Your task to perform on an android device: Add macbook pro 13 inch to the cart on costco.com, then select checkout. Image 0: 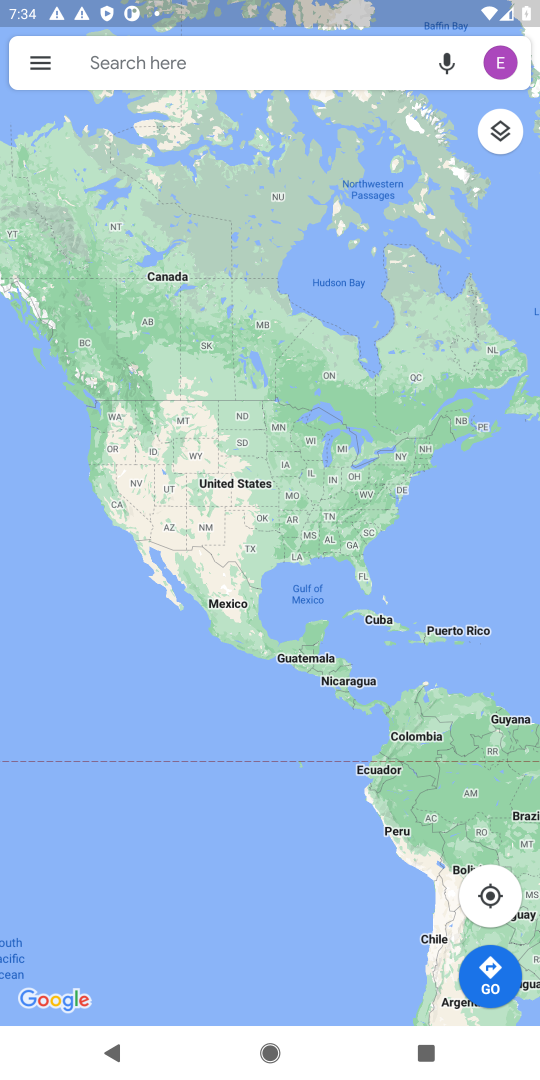
Step 0: press home button
Your task to perform on an android device: Add macbook pro 13 inch to the cart on costco.com, then select checkout. Image 1: 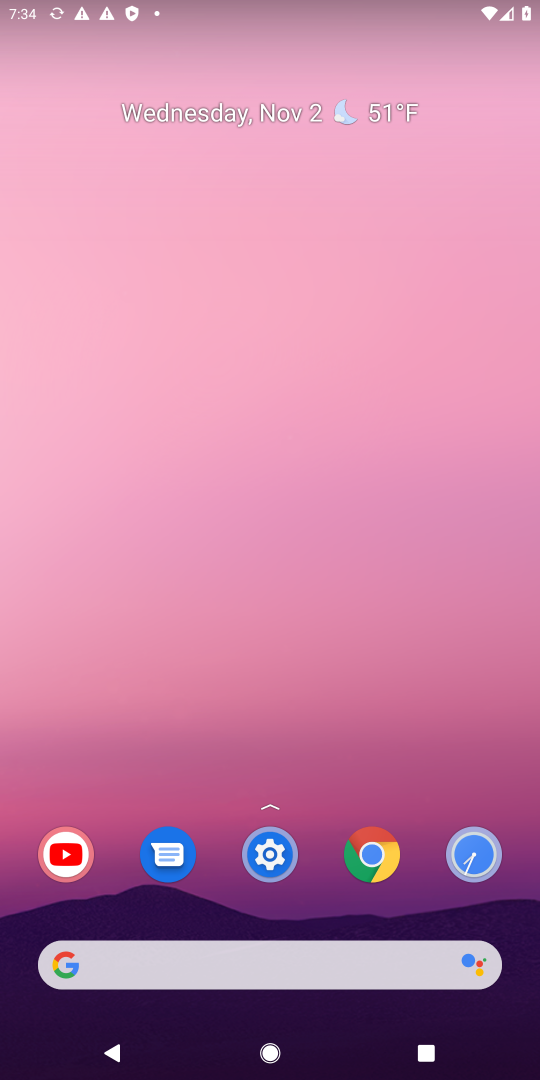
Step 1: click (371, 866)
Your task to perform on an android device: Add macbook pro 13 inch to the cart on costco.com, then select checkout. Image 2: 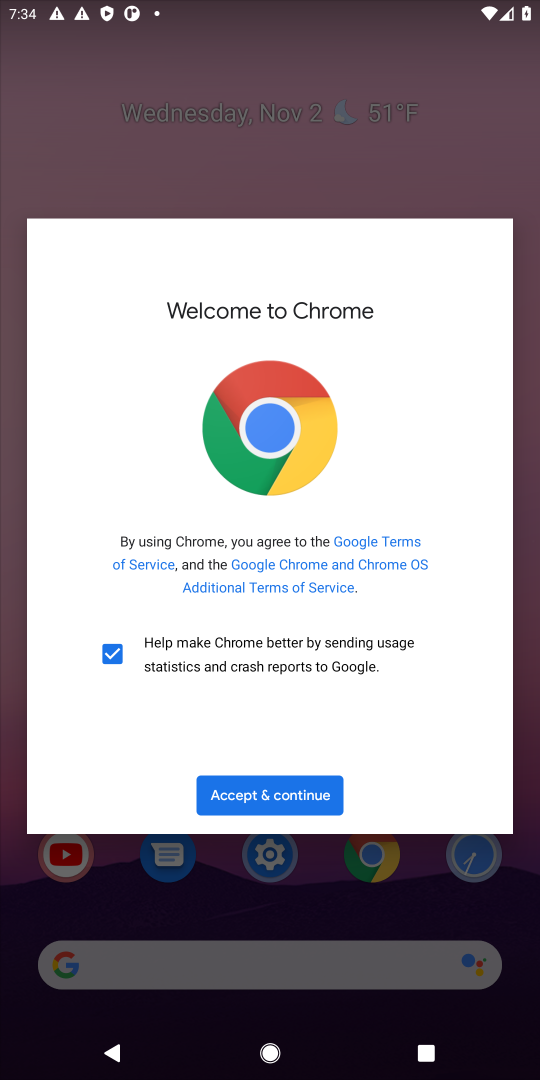
Step 2: click (216, 801)
Your task to perform on an android device: Add macbook pro 13 inch to the cart on costco.com, then select checkout. Image 3: 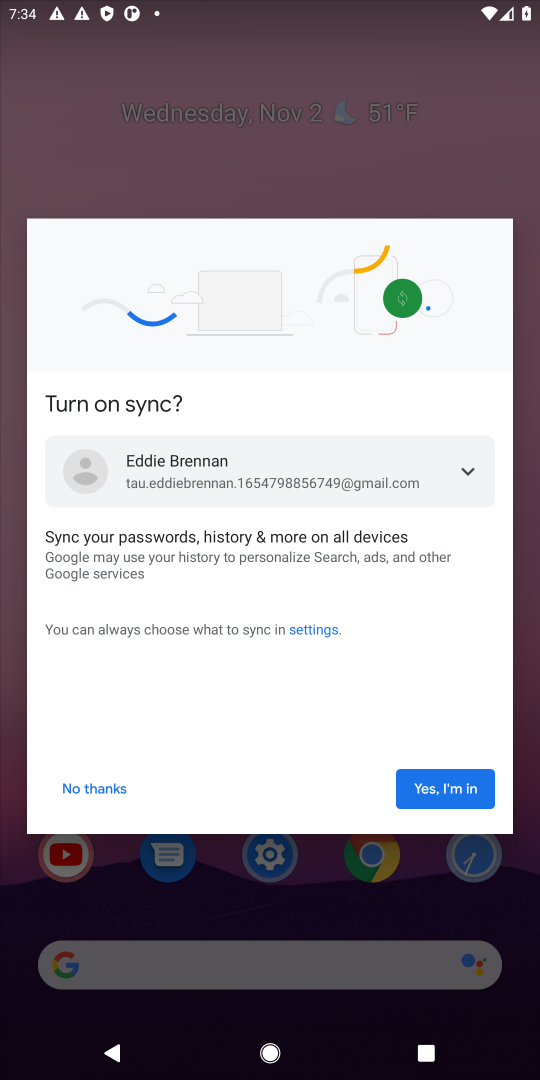
Step 3: click (468, 787)
Your task to perform on an android device: Add macbook pro 13 inch to the cart on costco.com, then select checkout. Image 4: 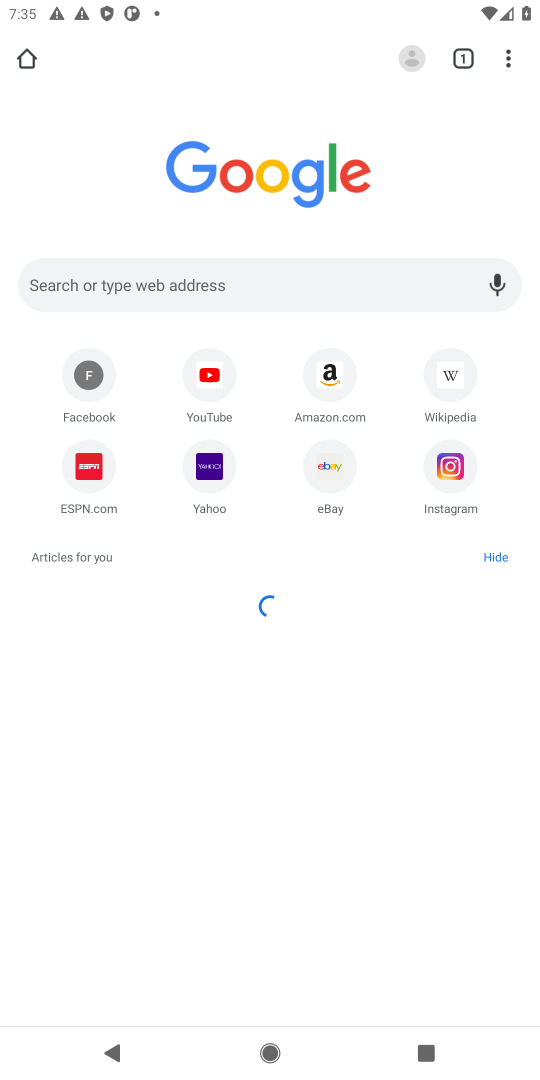
Step 4: click (156, 286)
Your task to perform on an android device: Add macbook pro 13 inch to the cart on costco.com, then select checkout. Image 5: 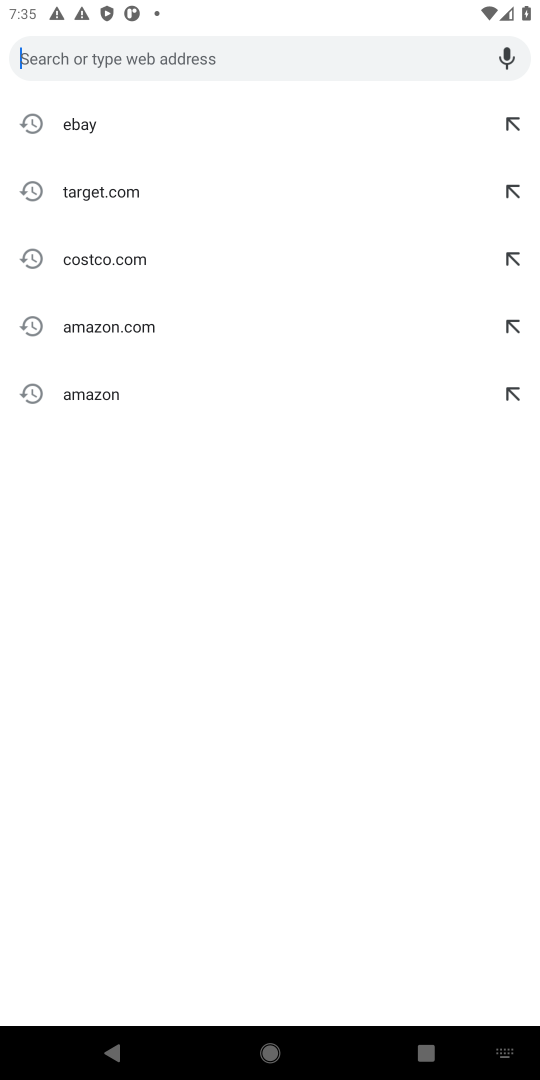
Step 5: type "costco"
Your task to perform on an android device: Add macbook pro 13 inch to the cart on costco.com, then select checkout. Image 6: 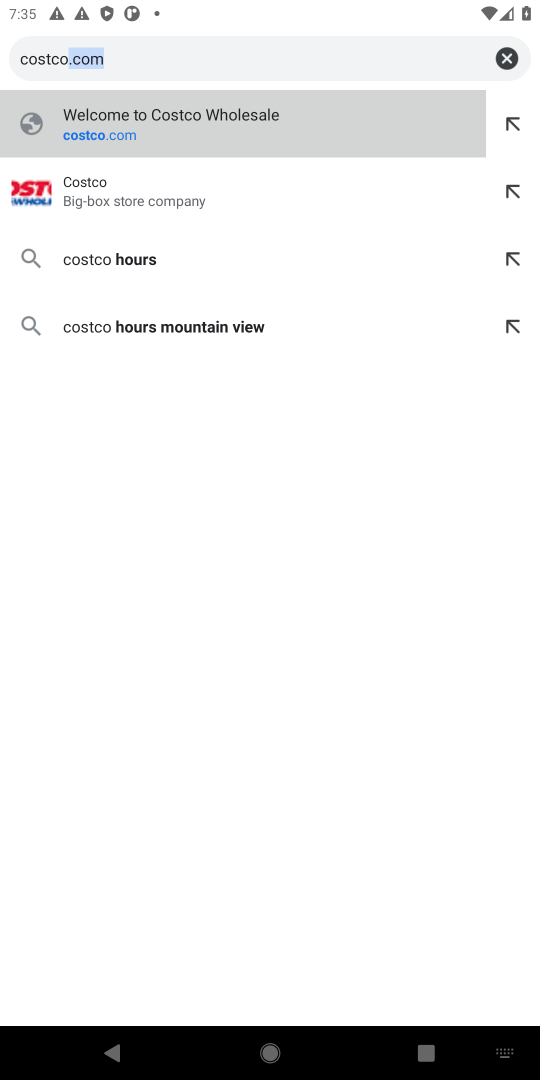
Step 6: click (111, 200)
Your task to perform on an android device: Add macbook pro 13 inch to the cart on costco.com, then select checkout. Image 7: 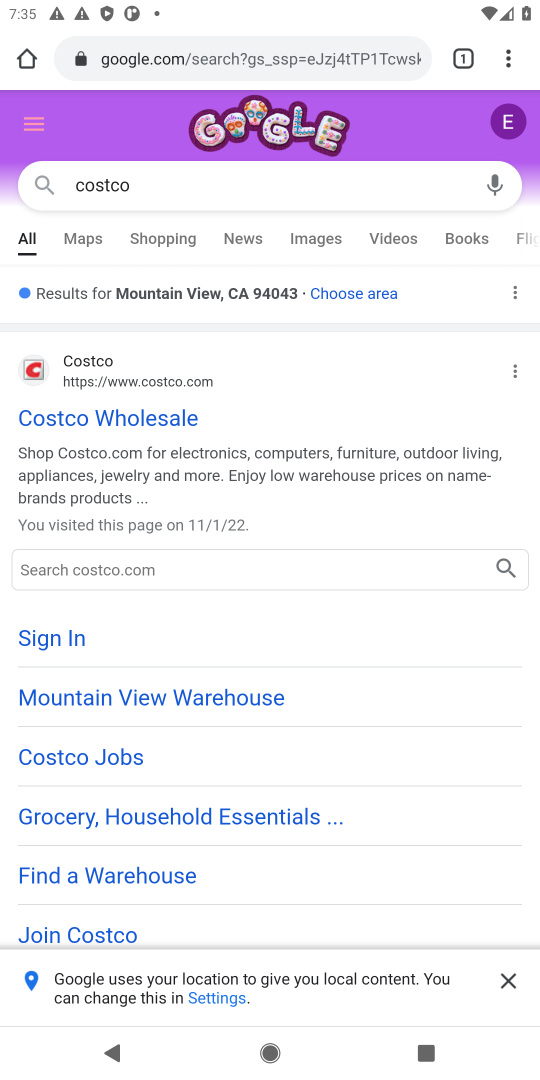
Step 7: click (79, 569)
Your task to perform on an android device: Add macbook pro 13 inch to the cart on costco.com, then select checkout. Image 8: 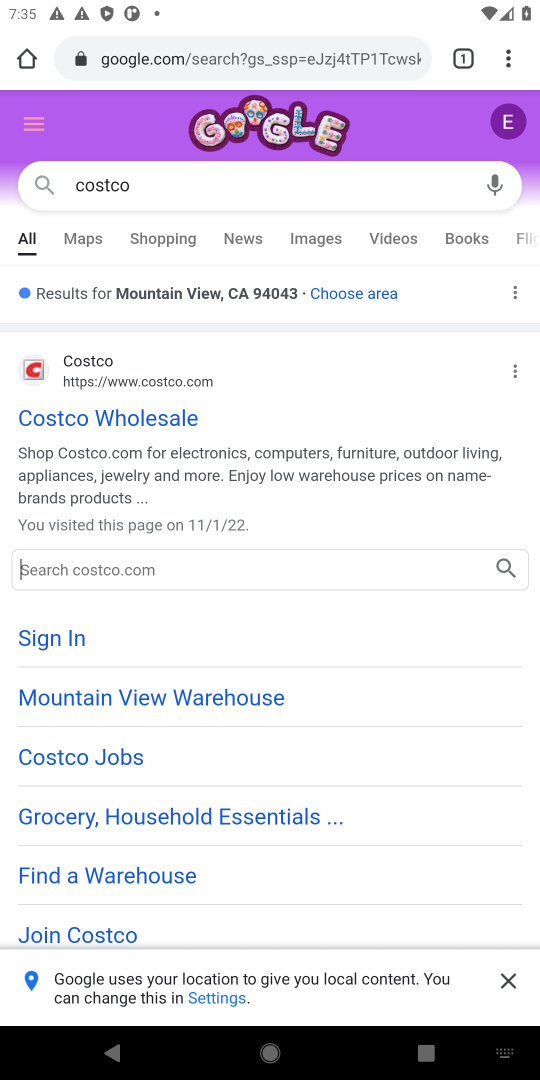
Step 8: type "macbook pro 13 inch"
Your task to perform on an android device: Add macbook pro 13 inch to the cart on costco.com, then select checkout. Image 9: 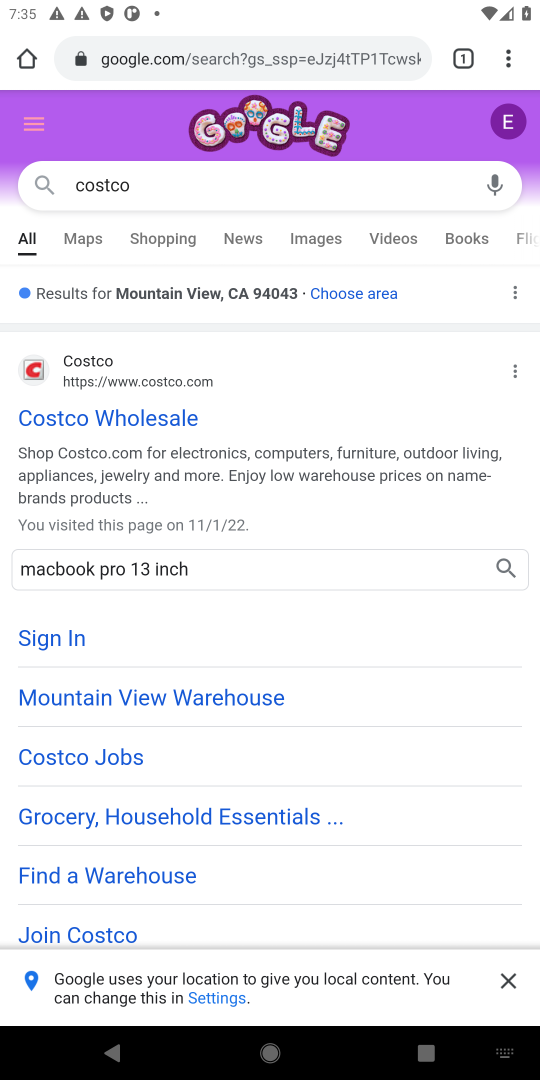
Step 9: click (499, 564)
Your task to perform on an android device: Add macbook pro 13 inch to the cart on costco.com, then select checkout. Image 10: 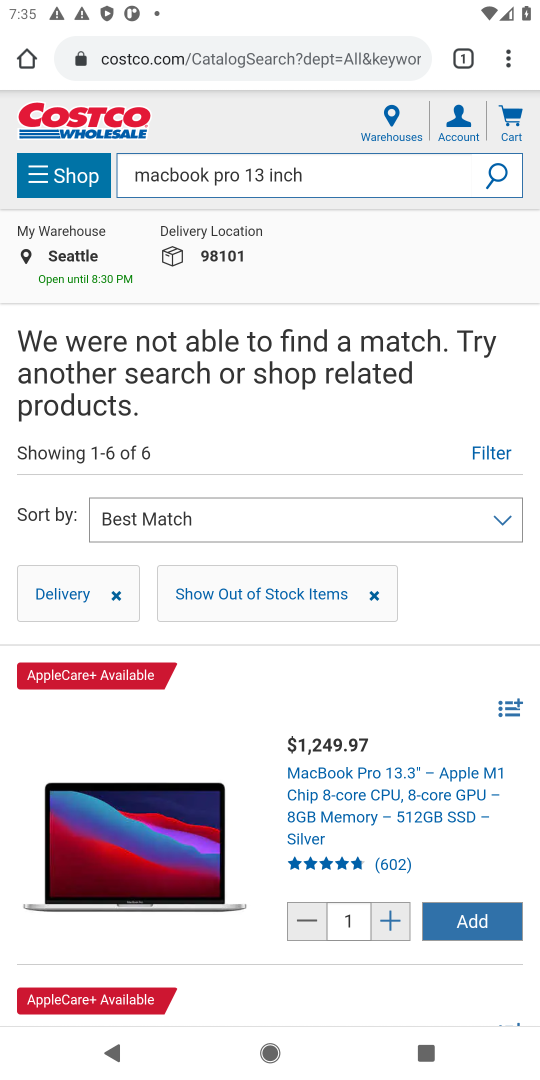
Step 10: click (478, 928)
Your task to perform on an android device: Add macbook pro 13 inch to the cart on costco.com, then select checkout. Image 11: 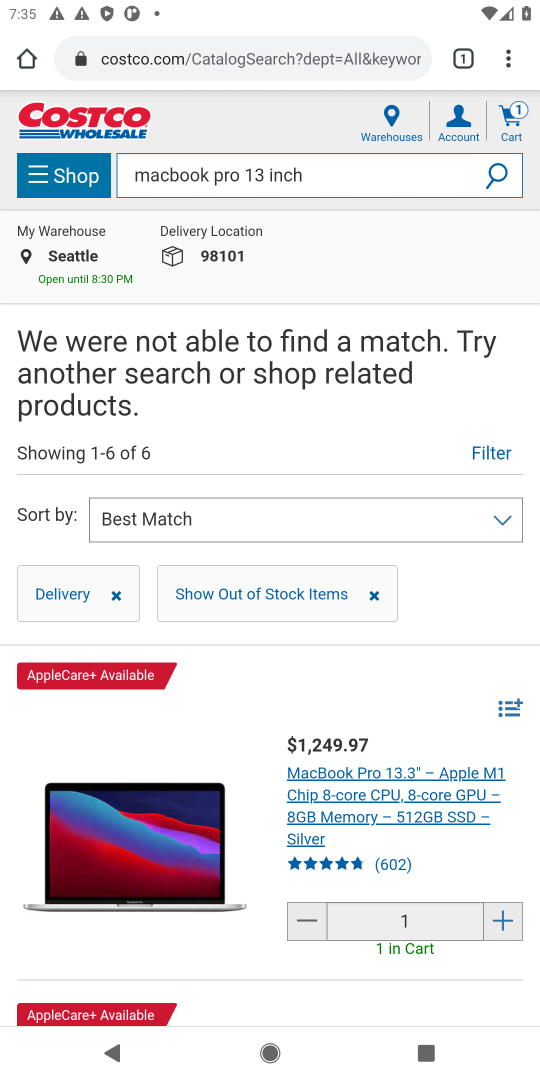
Step 11: task complete